Your task to perform on an android device: See recent photos Image 0: 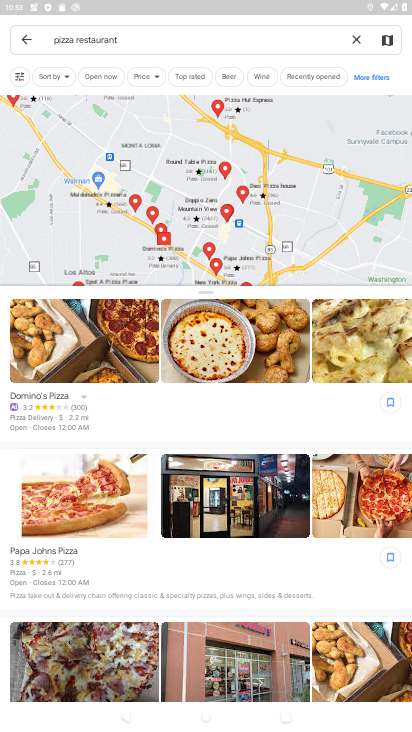
Step 0: press home button
Your task to perform on an android device: See recent photos Image 1: 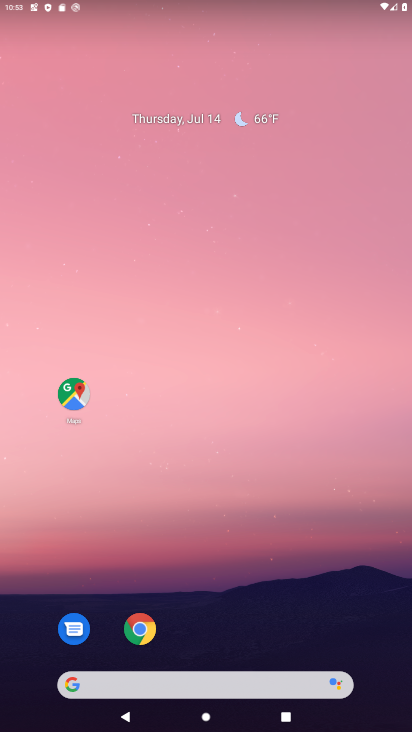
Step 1: drag from (250, 526) to (264, 94)
Your task to perform on an android device: See recent photos Image 2: 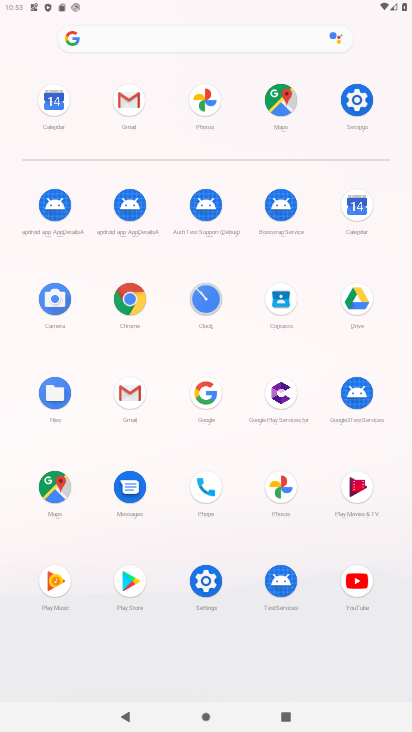
Step 2: click (275, 480)
Your task to perform on an android device: See recent photos Image 3: 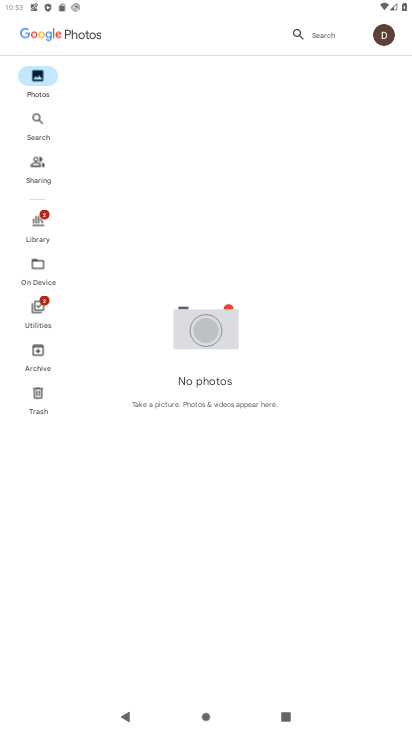
Step 3: task complete